Your task to perform on an android device: turn on the 12-hour format for clock Image 0: 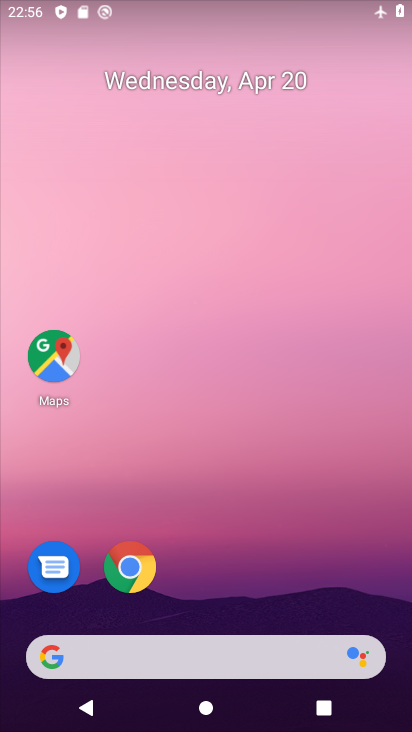
Step 0: drag from (288, 546) to (284, 264)
Your task to perform on an android device: turn on the 12-hour format for clock Image 1: 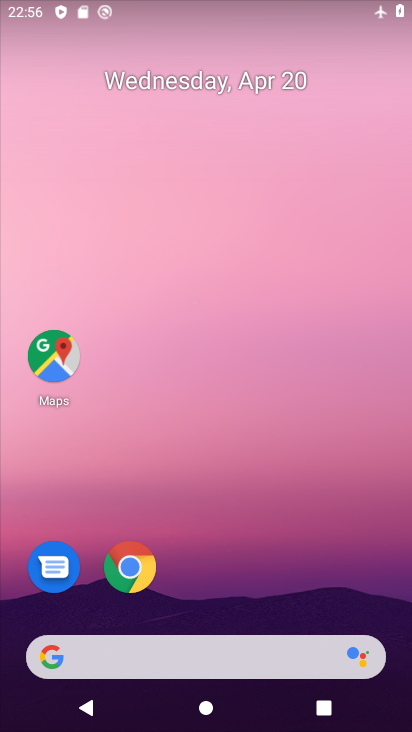
Step 1: drag from (242, 277) to (242, 219)
Your task to perform on an android device: turn on the 12-hour format for clock Image 2: 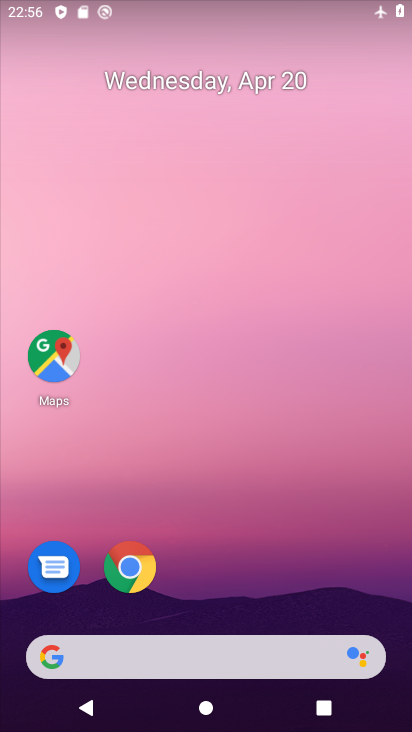
Step 2: drag from (229, 592) to (273, 68)
Your task to perform on an android device: turn on the 12-hour format for clock Image 3: 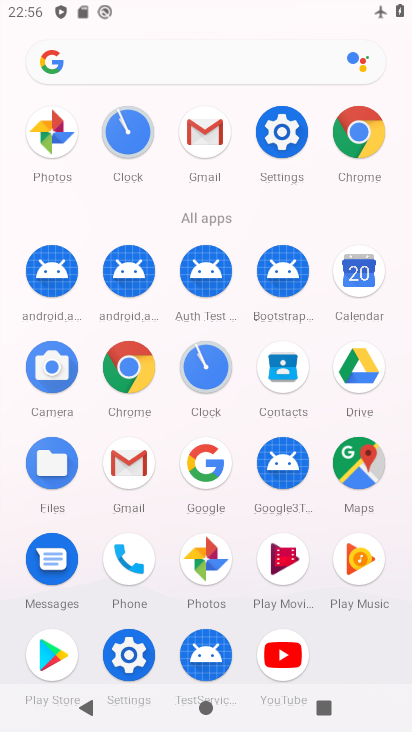
Step 3: click (204, 349)
Your task to perform on an android device: turn on the 12-hour format for clock Image 4: 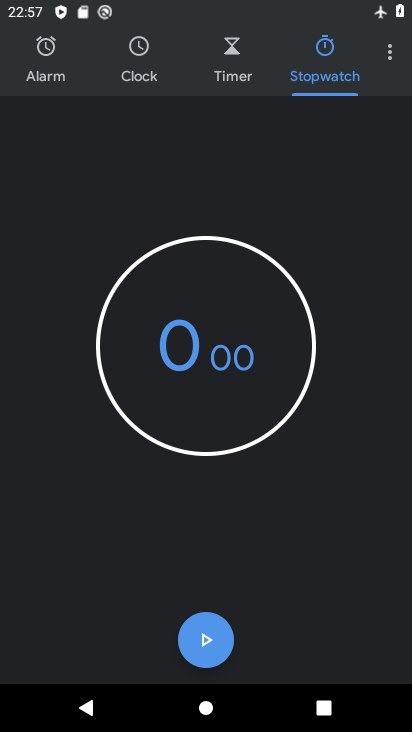
Step 4: click (389, 56)
Your task to perform on an android device: turn on the 12-hour format for clock Image 5: 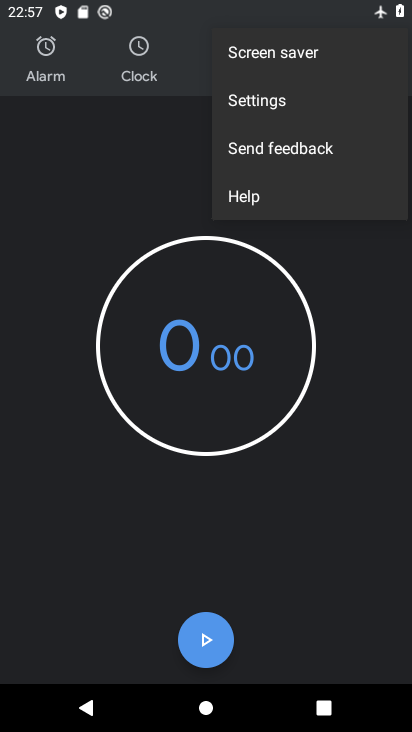
Step 5: click (261, 100)
Your task to perform on an android device: turn on the 12-hour format for clock Image 6: 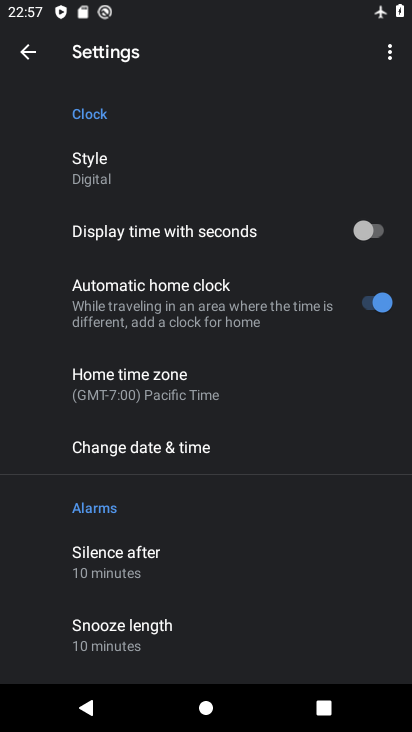
Step 6: click (192, 438)
Your task to perform on an android device: turn on the 12-hour format for clock Image 7: 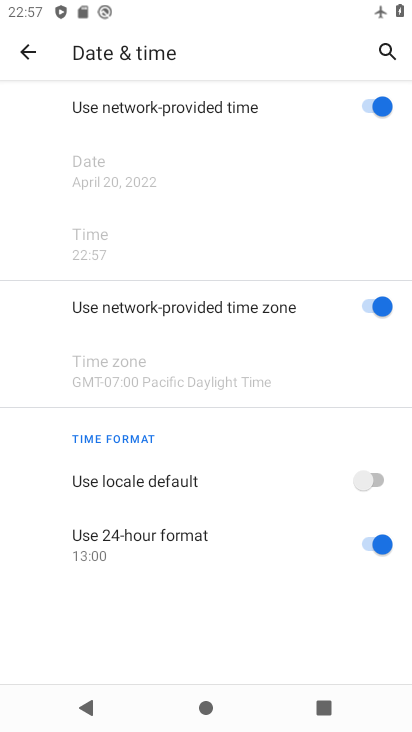
Step 7: task complete